Your task to perform on an android device: move an email to a new category in the gmail app Image 0: 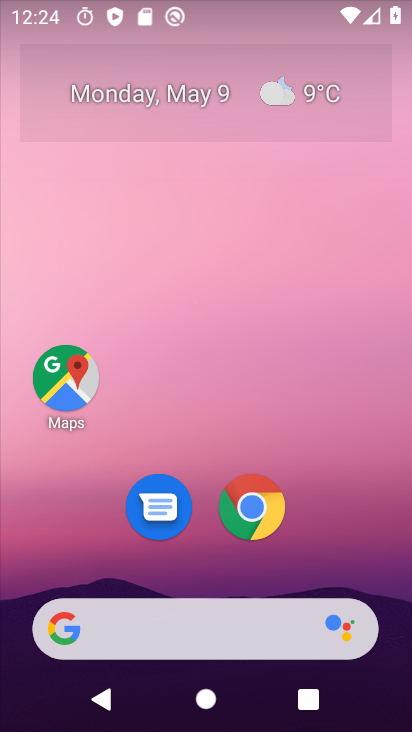
Step 0: drag from (225, 719) to (226, 160)
Your task to perform on an android device: move an email to a new category in the gmail app Image 1: 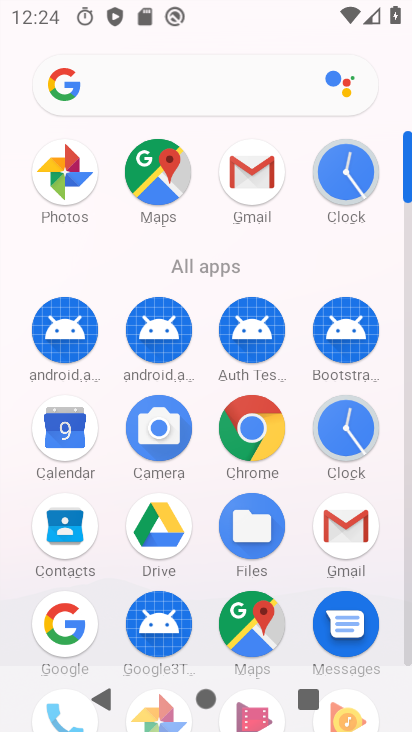
Step 1: click (354, 526)
Your task to perform on an android device: move an email to a new category in the gmail app Image 2: 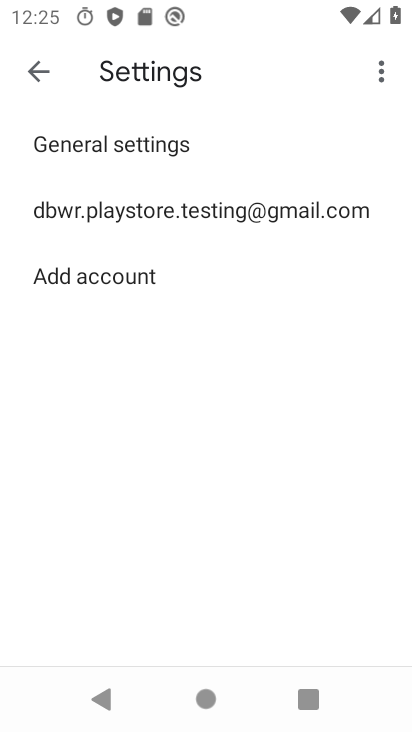
Step 2: click (40, 65)
Your task to perform on an android device: move an email to a new category in the gmail app Image 3: 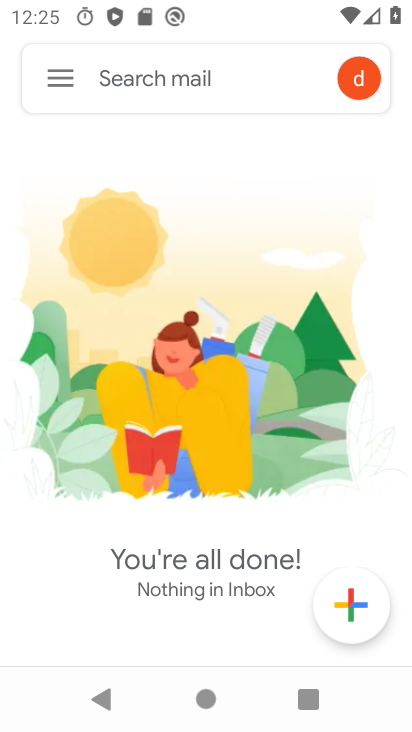
Step 3: task complete